Your task to perform on an android device: Open the calendar and show me this week's events? Image 0: 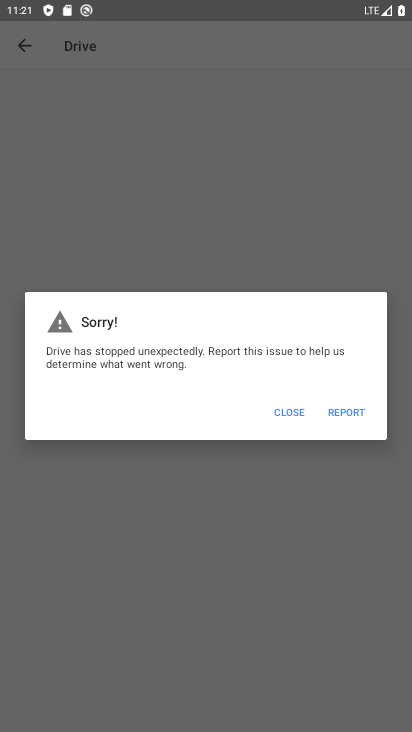
Step 0: press home button
Your task to perform on an android device: Open the calendar and show me this week's events? Image 1: 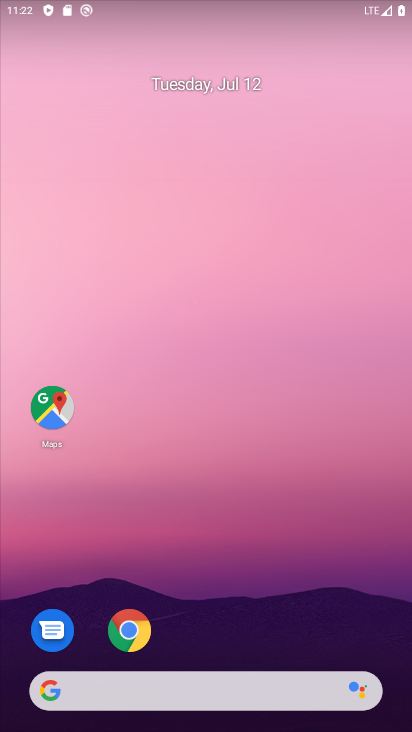
Step 1: drag from (305, 625) to (225, 11)
Your task to perform on an android device: Open the calendar and show me this week's events? Image 2: 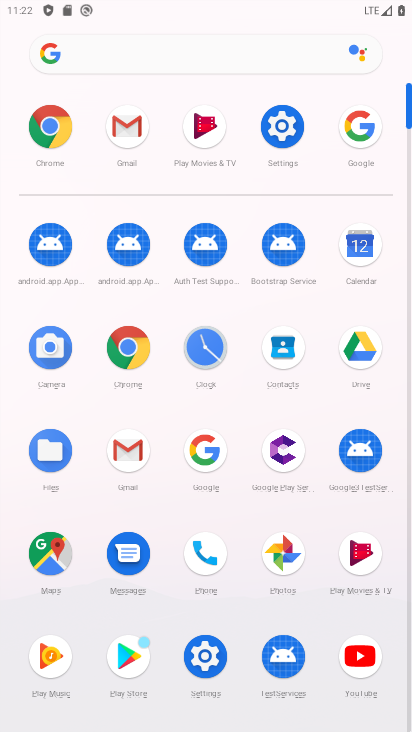
Step 2: click (355, 239)
Your task to perform on an android device: Open the calendar and show me this week's events? Image 3: 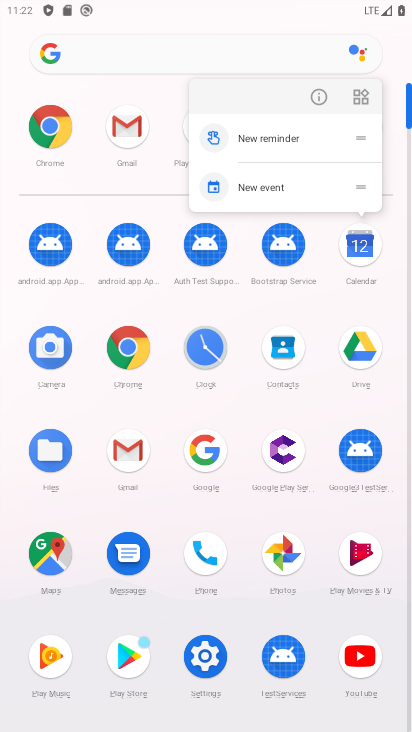
Step 3: click (369, 249)
Your task to perform on an android device: Open the calendar and show me this week's events? Image 4: 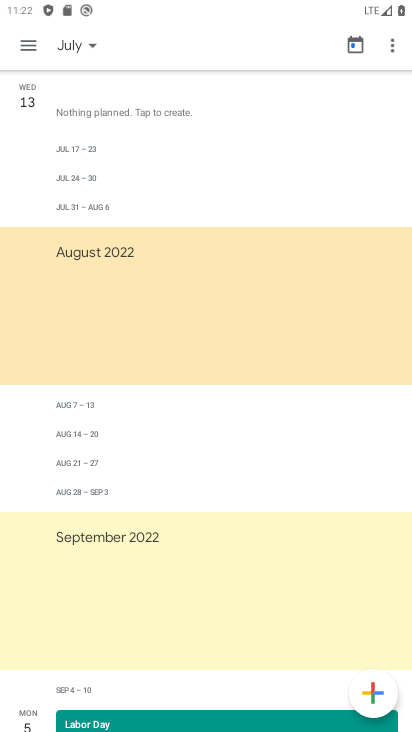
Step 4: task complete